Your task to perform on an android device: turn notification dots on Image 0: 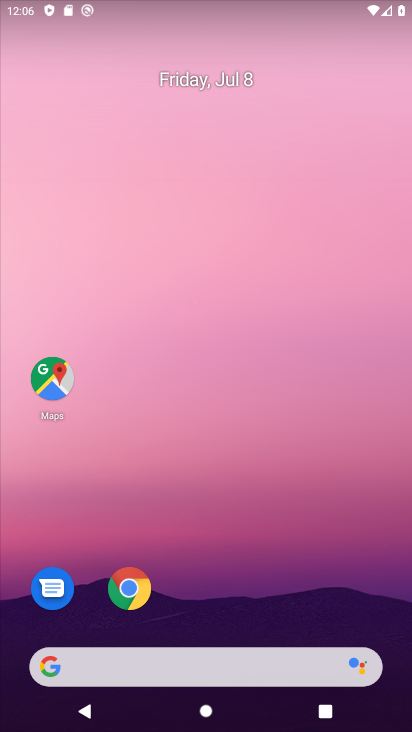
Step 0: press home button
Your task to perform on an android device: turn notification dots on Image 1: 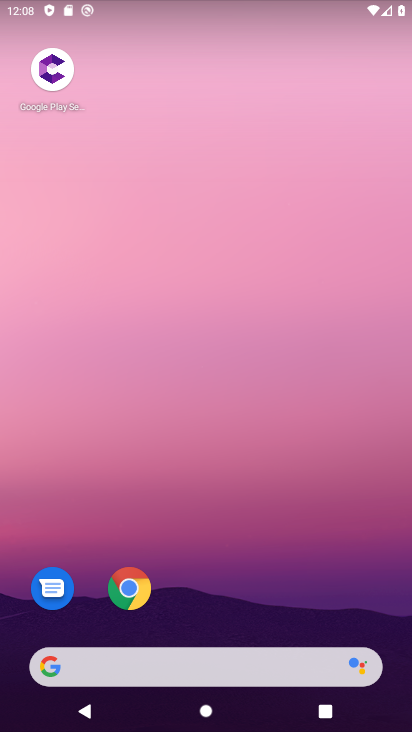
Step 1: press home button
Your task to perform on an android device: turn notification dots on Image 2: 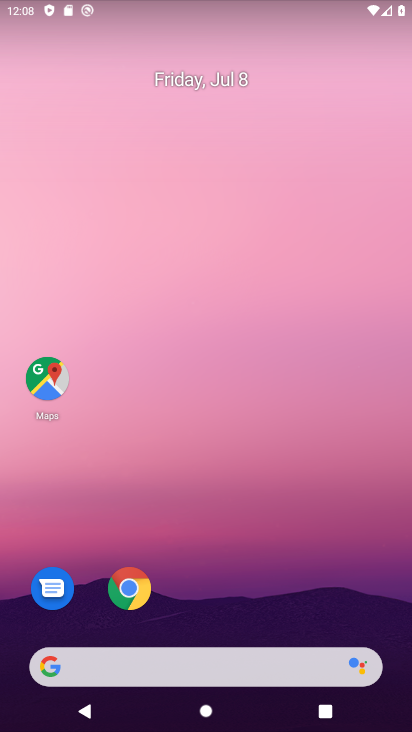
Step 2: drag from (292, 567) to (195, 3)
Your task to perform on an android device: turn notification dots on Image 3: 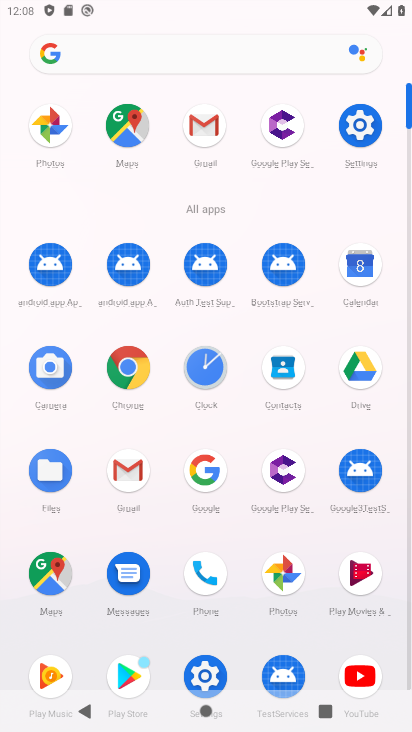
Step 3: click (362, 120)
Your task to perform on an android device: turn notification dots on Image 4: 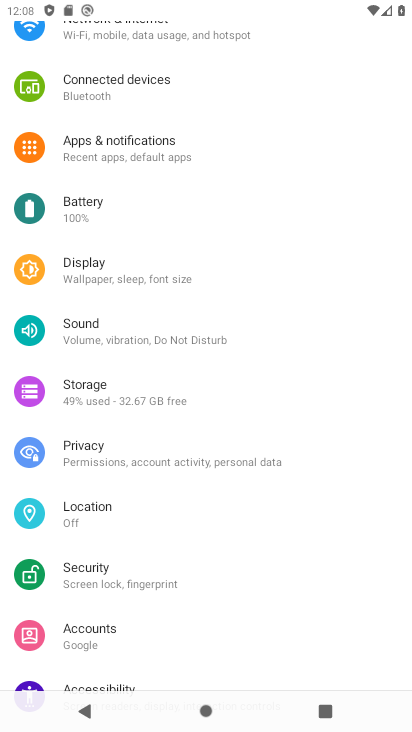
Step 4: click (113, 152)
Your task to perform on an android device: turn notification dots on Image 5: 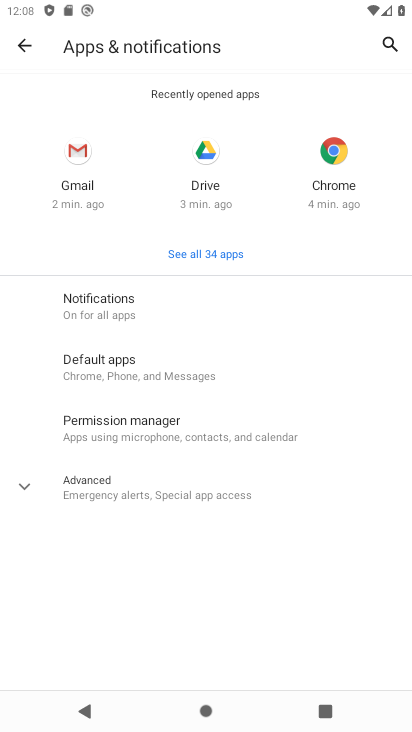
Step 5: click (79, 491)
Your task to perform on an android device: turn notification dots on Image 6: 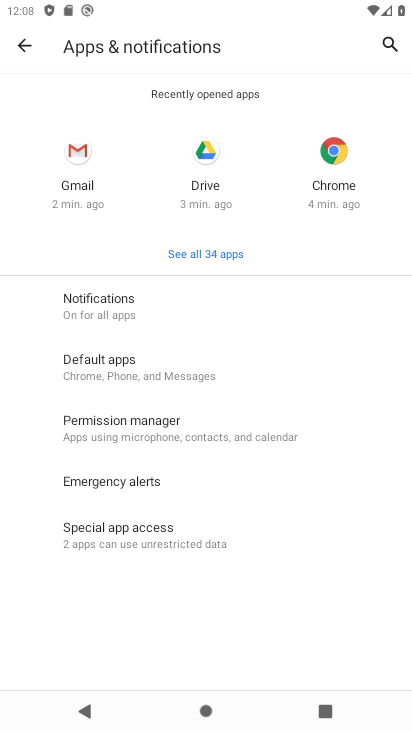
Step 6: click (119, 303)
Your task to perform on an android device: turn notification dots on Image 7: 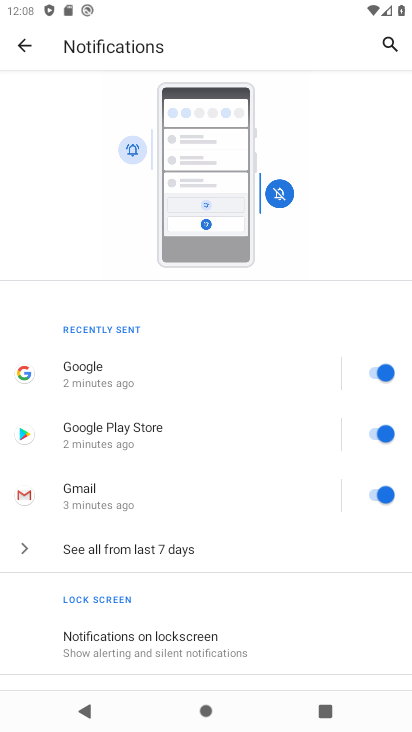
Step 7: drag from (210, 591) to (191, 330)
Your task to perform on an android device: turn notification dots on Image 8: 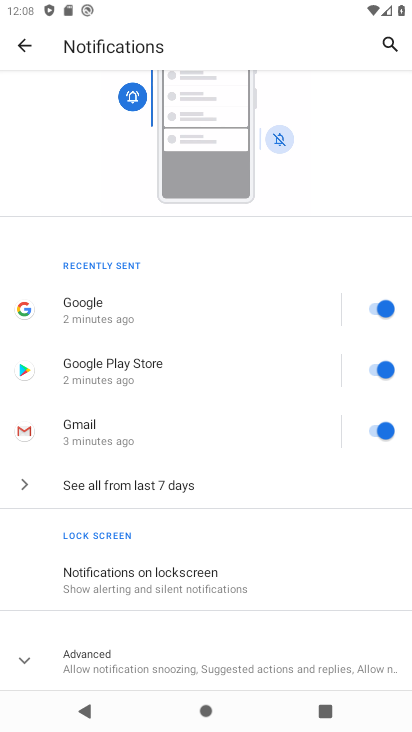
Step 8: click (19, 656)
Your task to perform on an android device: turn notification dots on Image 9: 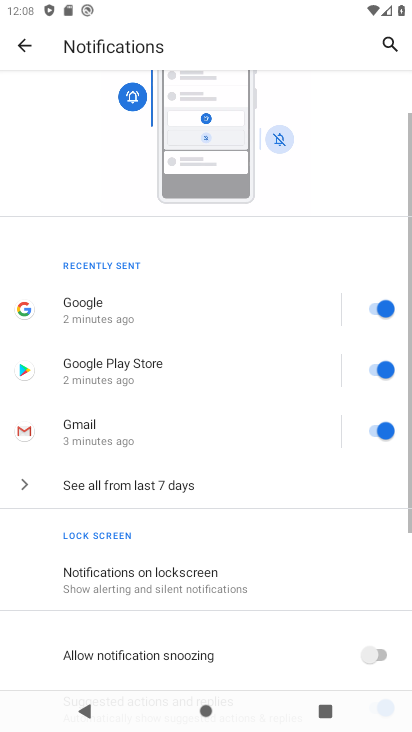
Step 9: task complete